Your task to perform on an android device: Go to Amazon Image 0: 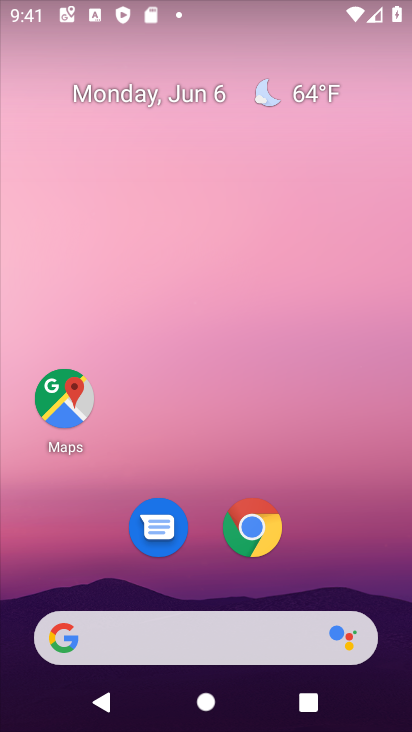
Step 0: drag from (204, 578) to (309, 139)
Your task to perform on an android device: Go to Amazon Image 1: 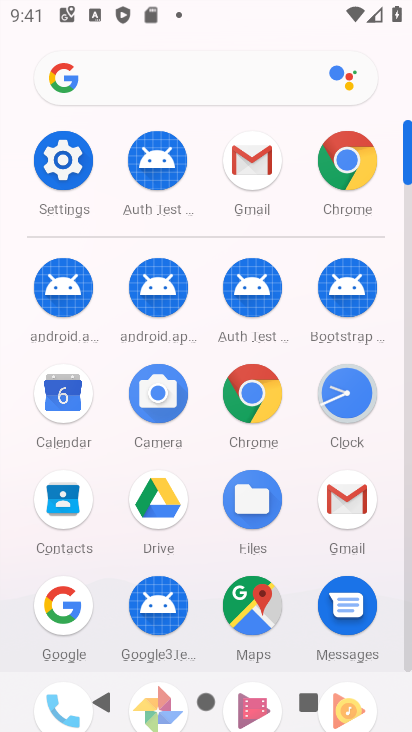
Step 1: click (357, 177)
Your task to perform on an android device: Go to Amazon Image 2: 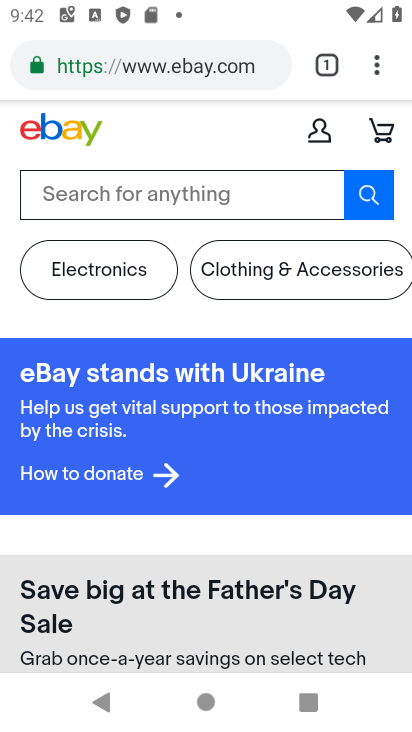
Step 2: click (261, 67)
Your task to perform on an android device: Go to Amazon Image 3: 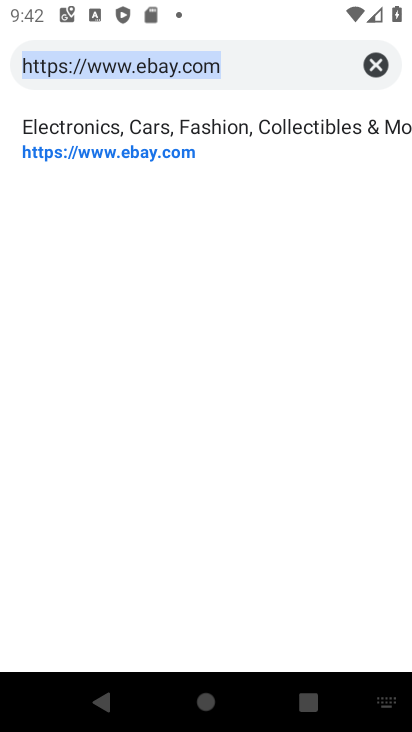
Step 3: type "amazon"
Your task to perform on an android device: Go to Amazon Image 4: 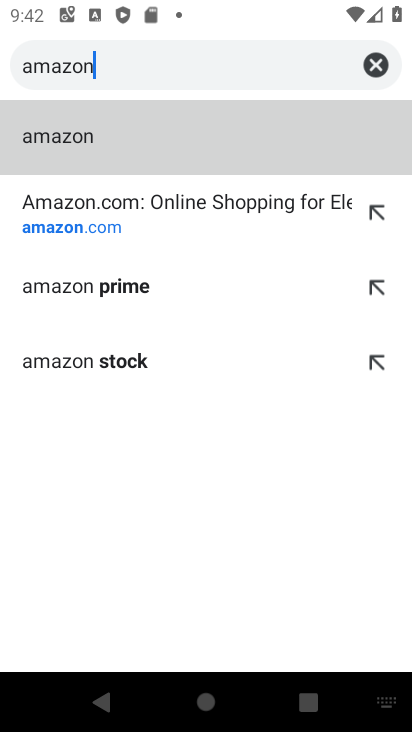
Step 4: click (180, 212)
Your task to perform on an android device: Go to Amazon Image 5: 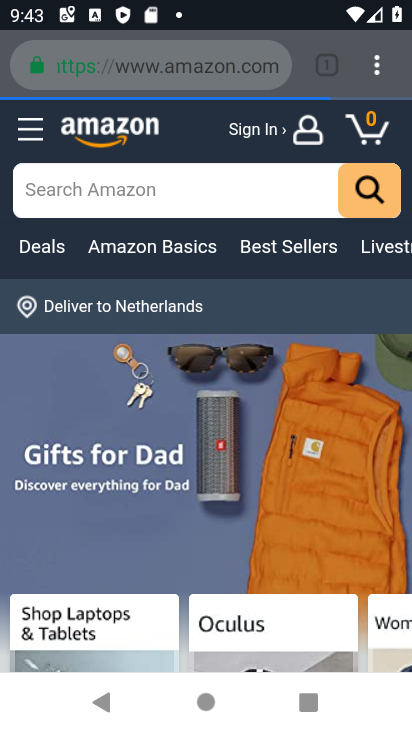
Step 5: task complete